Your task to perform on an android device: uninstall "NewsBreak: Local News & Alerts" Image 0: 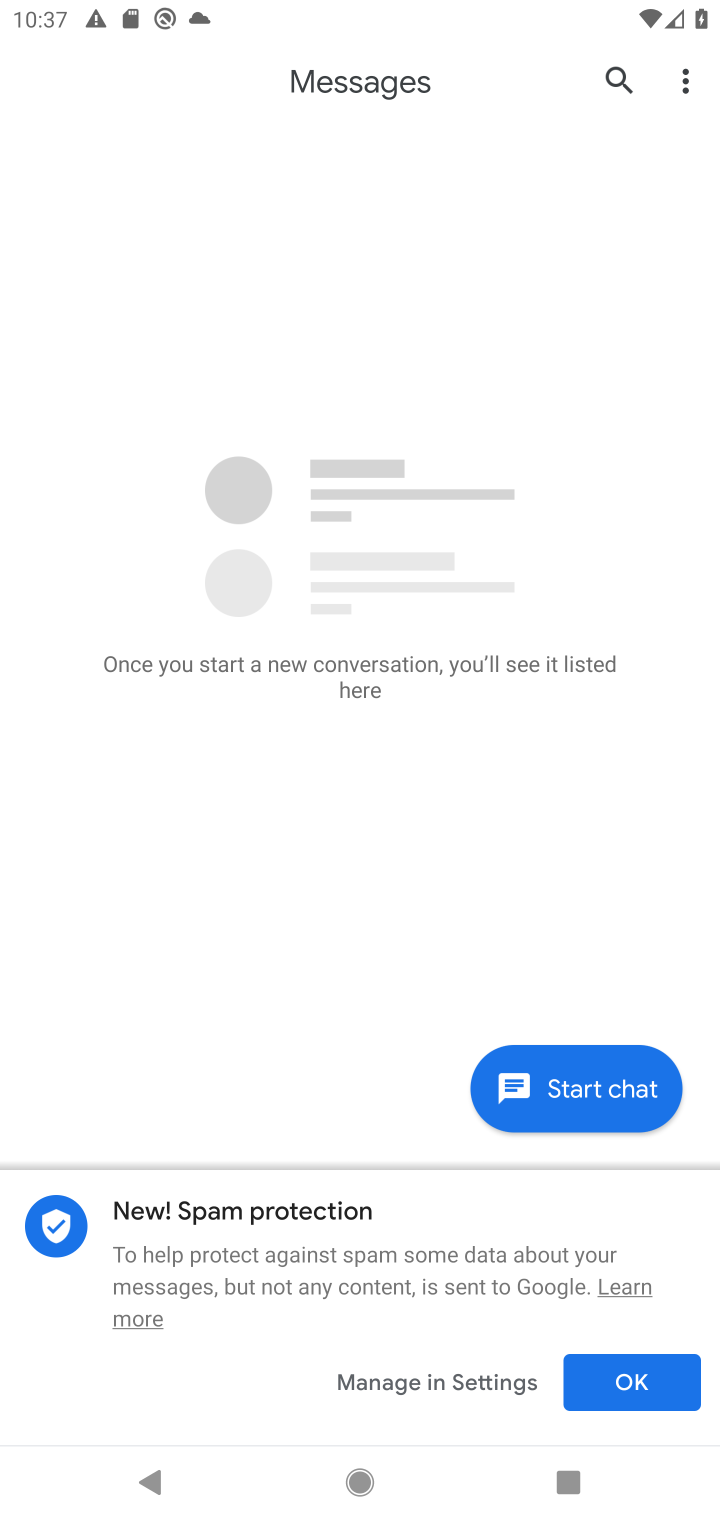
Step 0: press home button
Your task to perform on an android device: uninstall "NewsBreak: Local News & Alerts" Image 1: 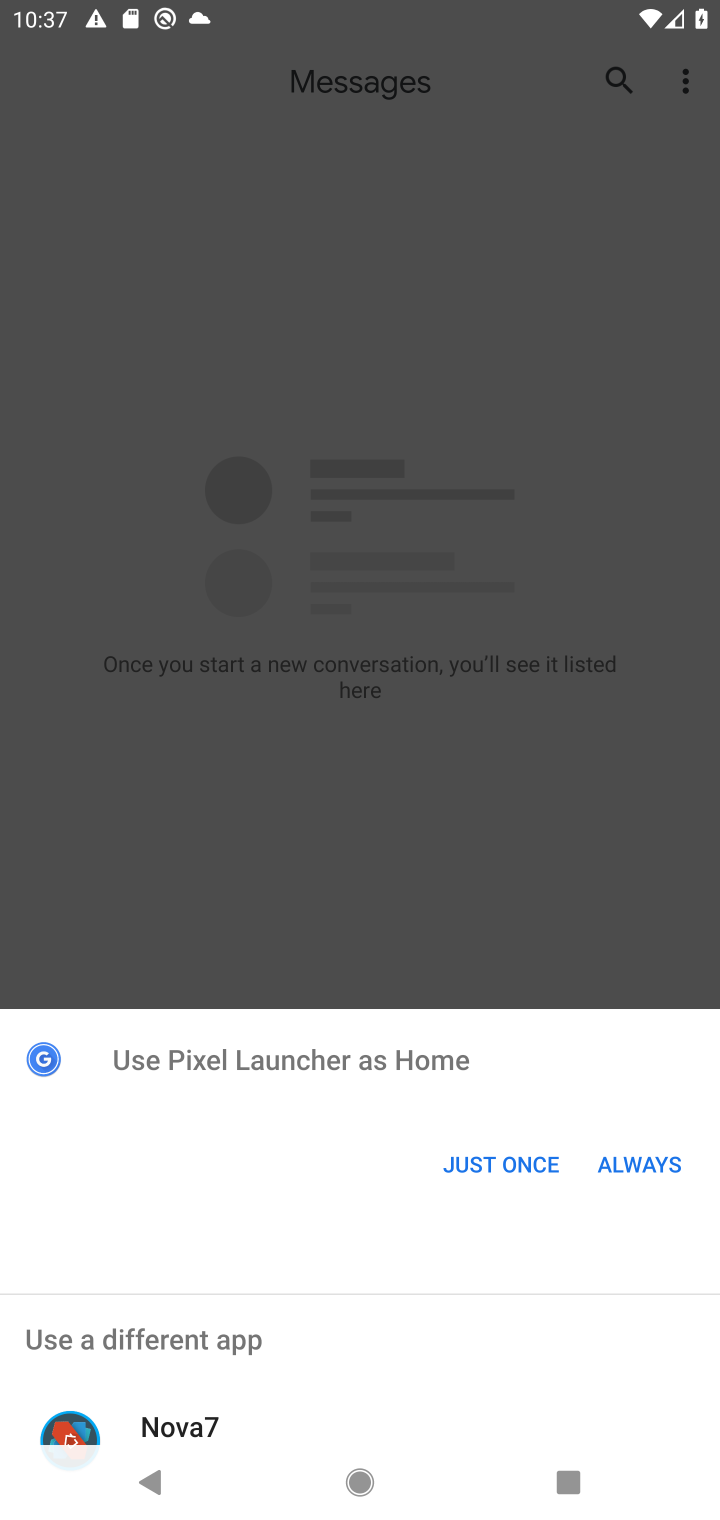
Step 1: click (454, 1133)
Your task to perform on an android device: uninstall "NewsBreak: Local News & Alerts" Image 2: 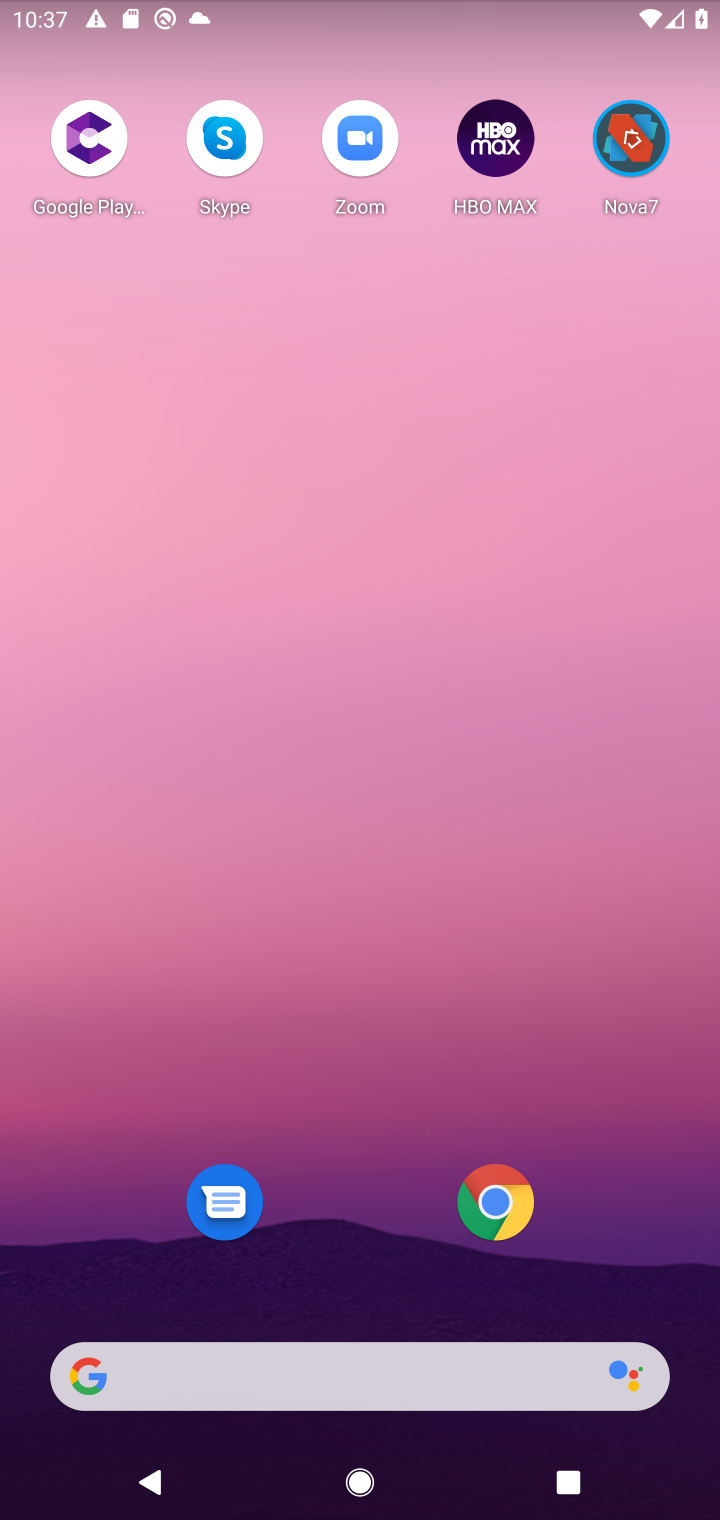
Step 2: click (375, 1369)
Your task to perform on an android device: uninstall "NewsBreak: Local News & Alerts" Image 3: 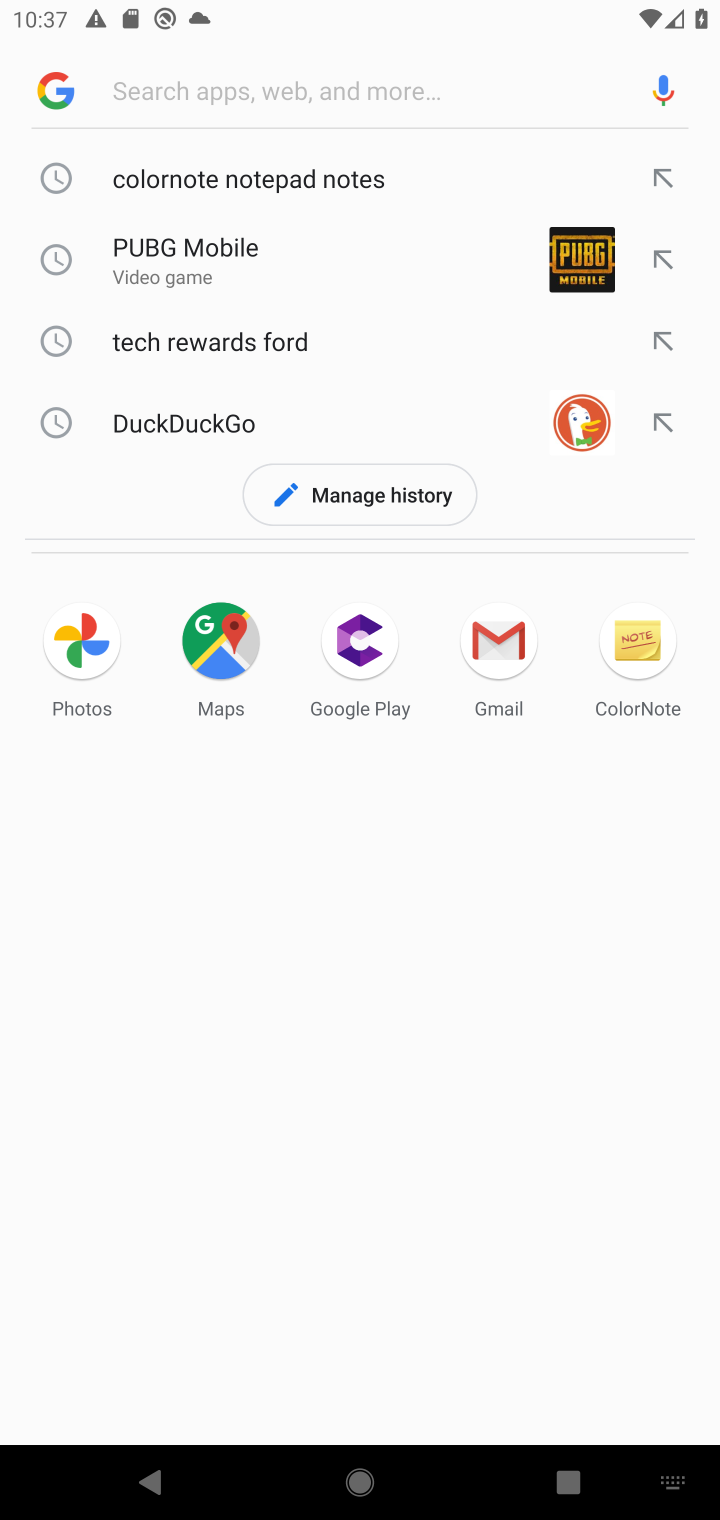
Step 3: type "newsbreak"
Your task to perform on an android device: uninstall "NewsBreak: Local News & Alerts" Image 4: 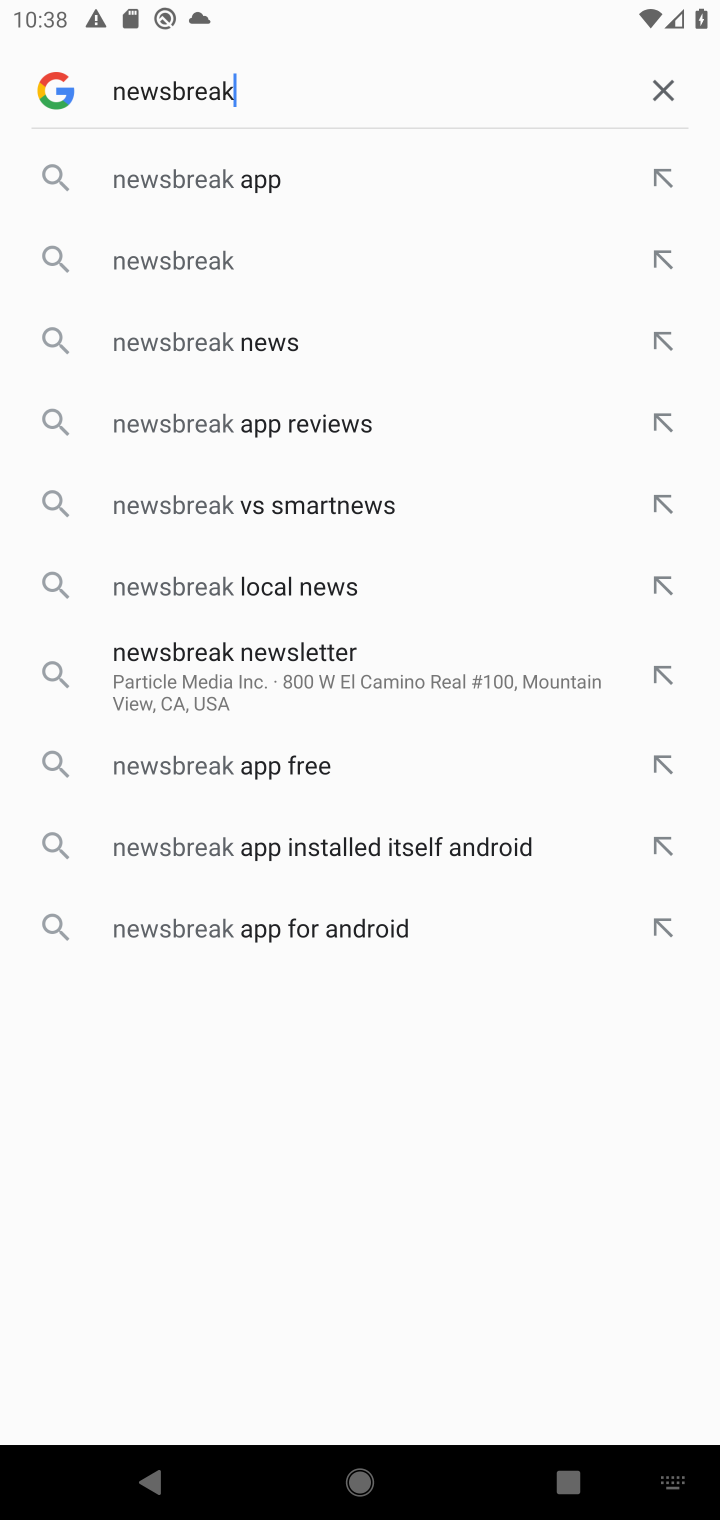
Step 4: click (312, 192)
Your task to perform on an android device: uninstall "NewsBreak: Local News & Alerts" Image 5: 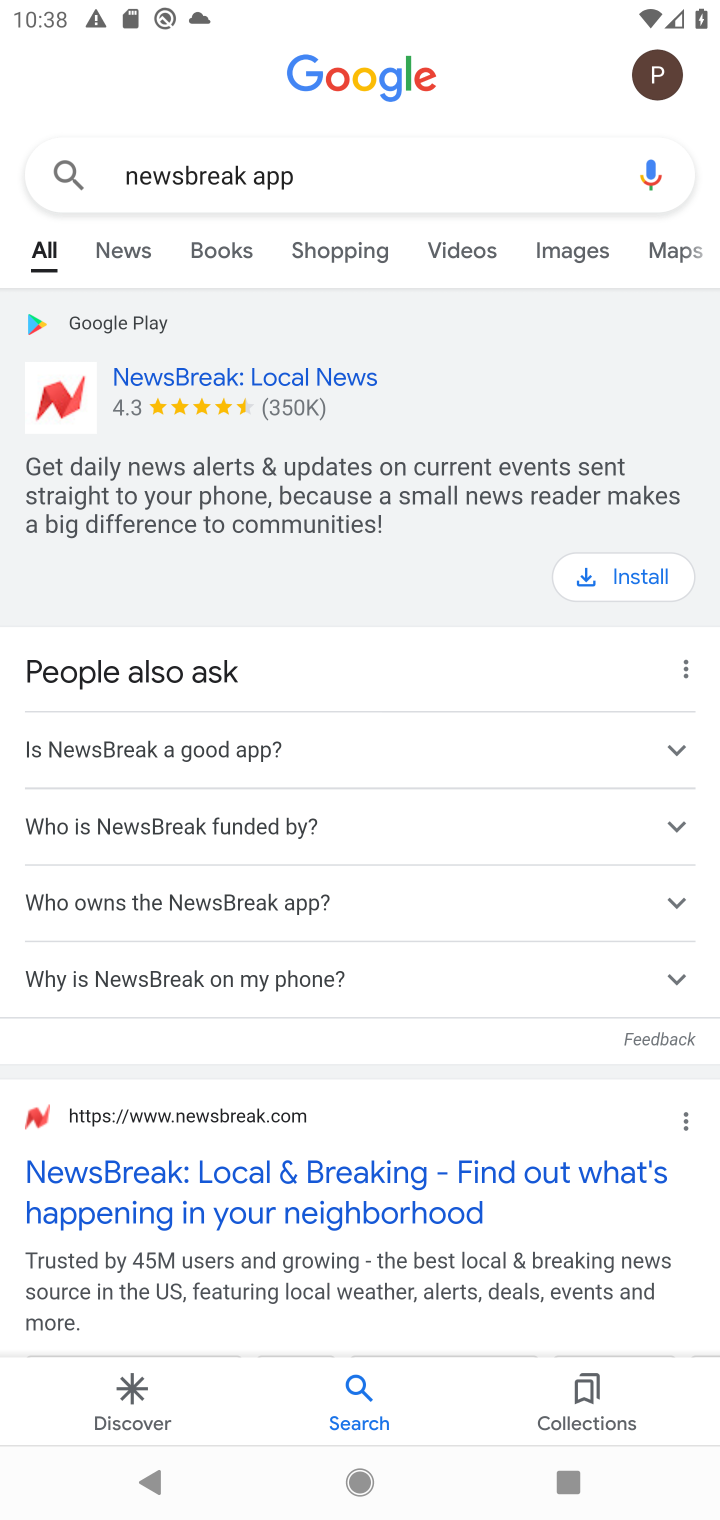
Step 5: click (664, 584)
Your task to perform on an android device: uninstall "NewsBreak: Local News & Alerts" Image 6: 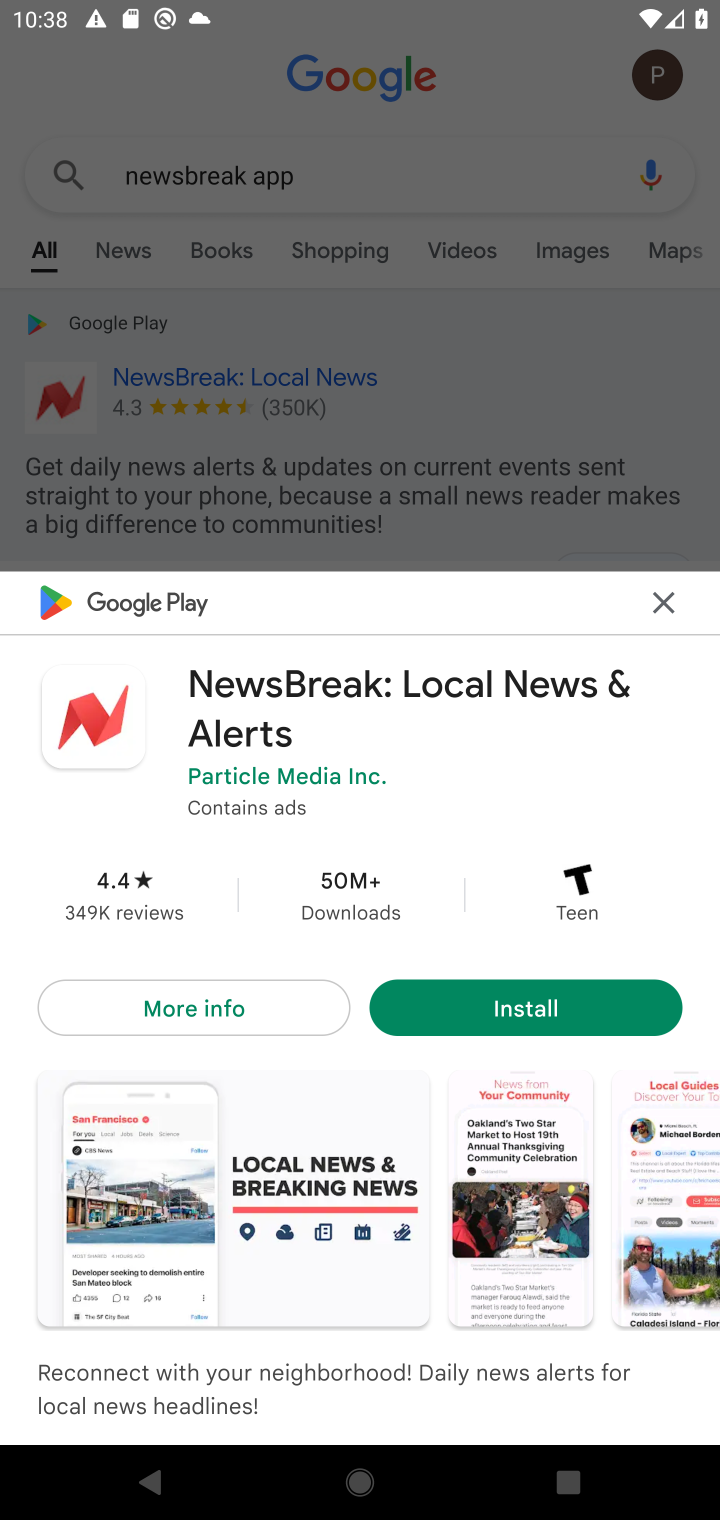
Step 6: click (608, 1013)
Your task to perform on an android device: uninstall "NewsBreak: Local News & Alerts" Image 7: 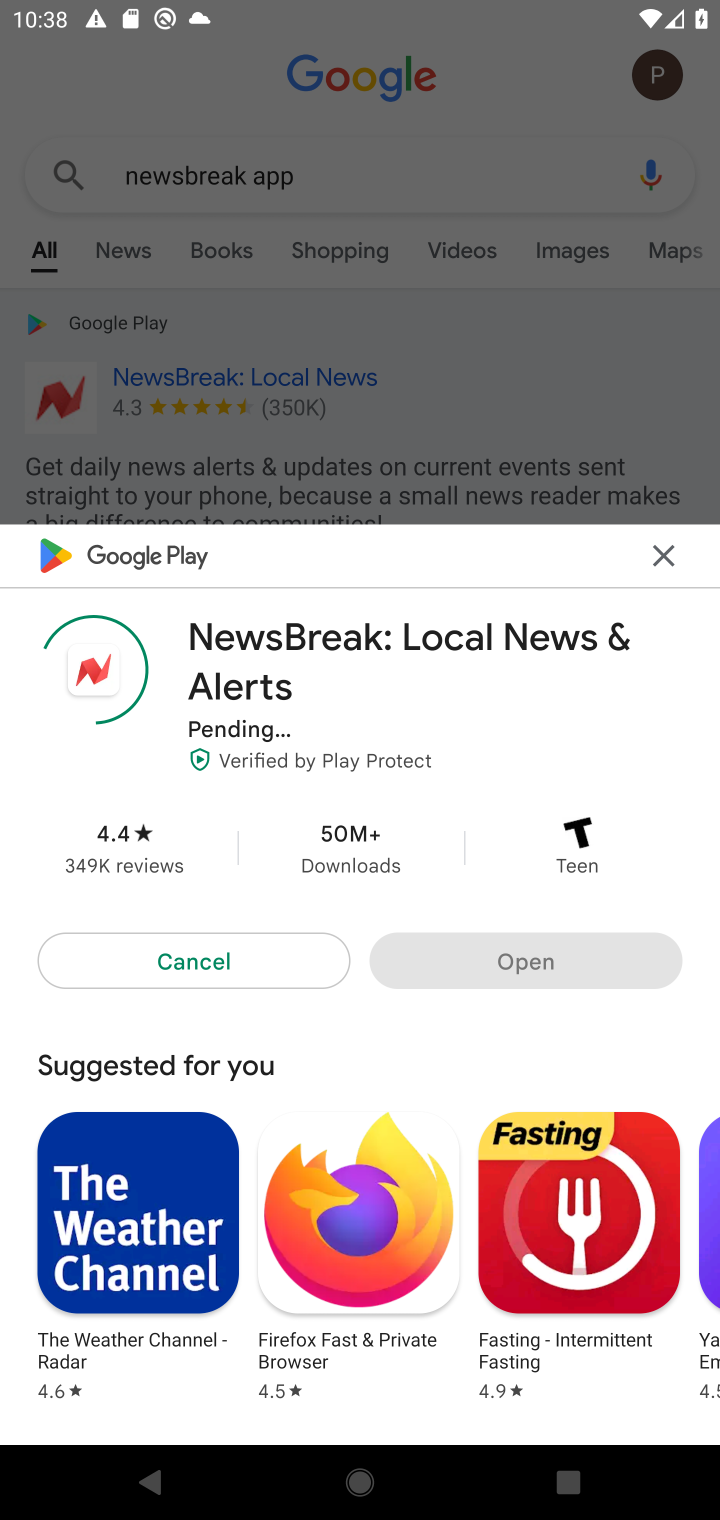
Step 7: task complete